Your task to perform on an android device: turn on data saver in the chrome app Image 0: 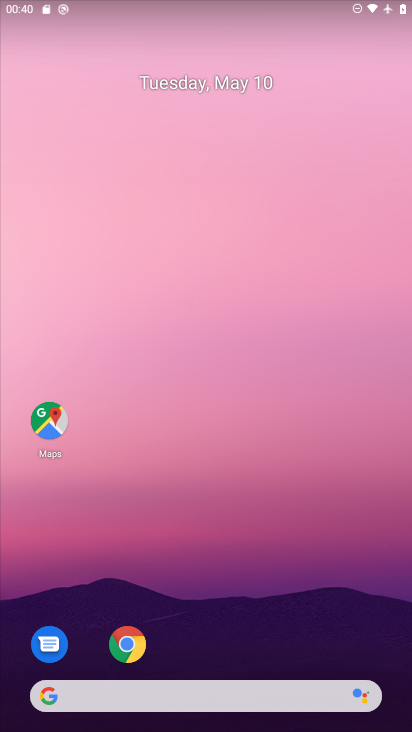
Step 0: click (140, 648)
Your task to perform on an android device: turn on data saver in the chrome app Image 1: 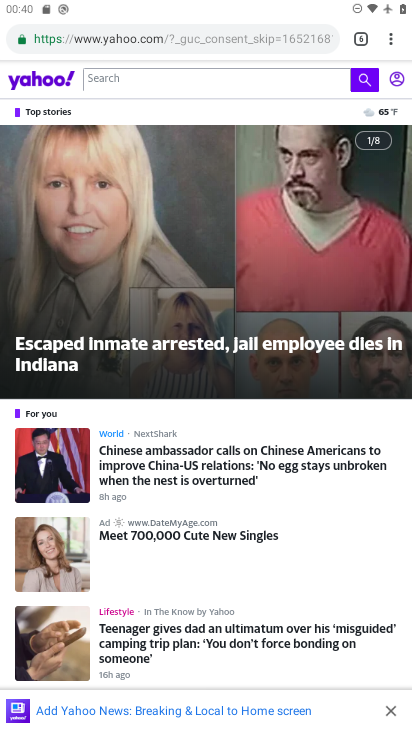
Step 1: drag from (389, 38) to (247, 460)
Your task to perform on an android device: turn on data saver in the chrome app Image 2: 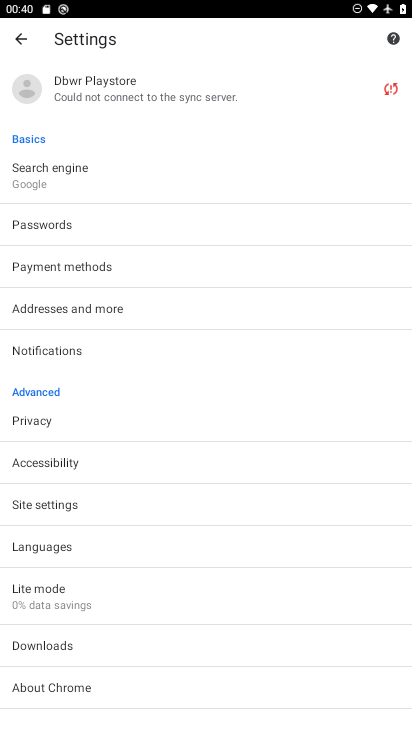
Step 2: click (74, 598)
Your task to perform on an android device: turn on data saver in the chrome app Image 3: 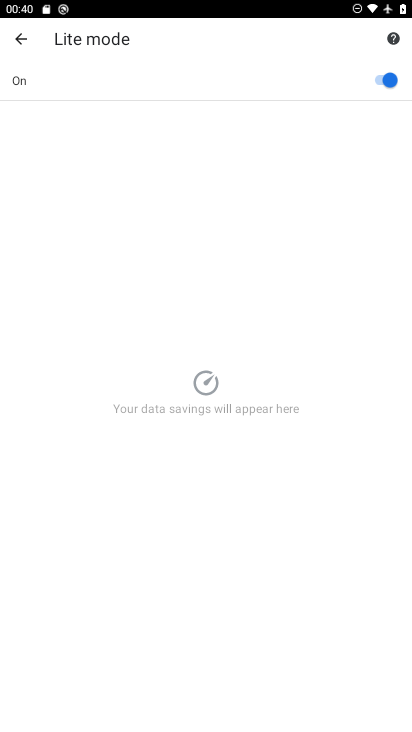
Step 3: task complete